Your task to perform on an android device: Clear the cart on target. Search for sony triple a on target, select the first entry, and add it to the cart. Image 0: 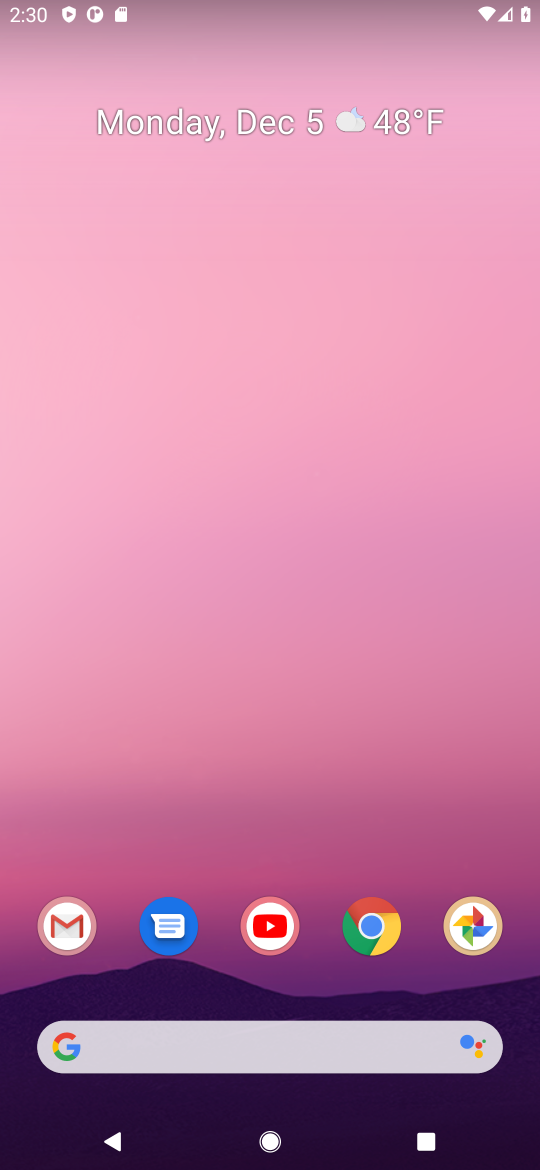
Step 0: click (382, 926)
Your task to perform on an android device: Clear the cart on target. Search for sony triple a on target, select the first entry, and add it to the cart. Image 1: 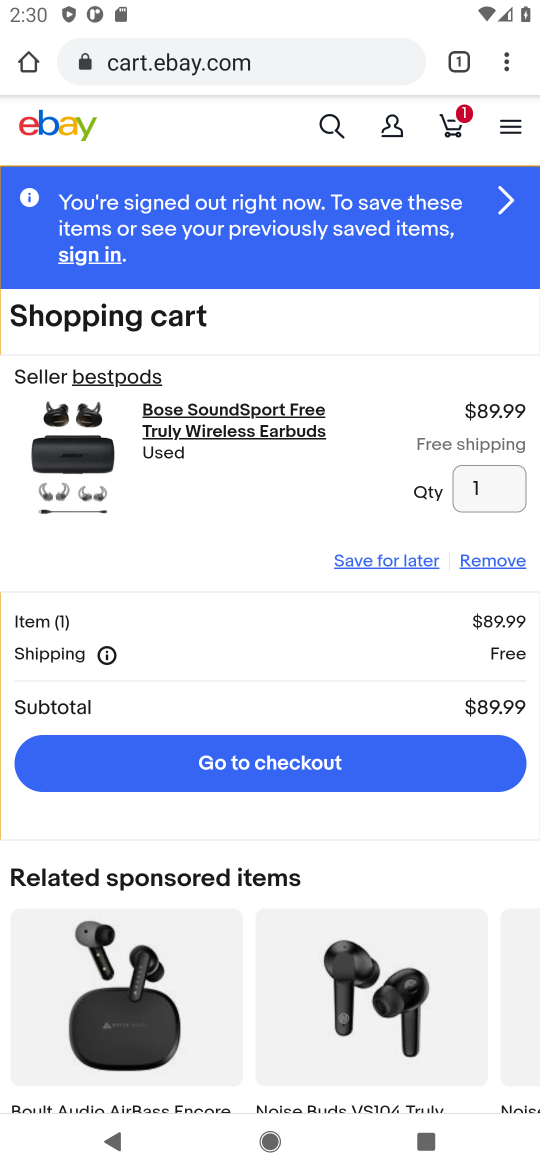
Step 1: click (343, 57)
Your task to perform on an android device: Clear the cart on target. Search for sony triple a on target, select the first entry, and add it to the cart. Image 2: 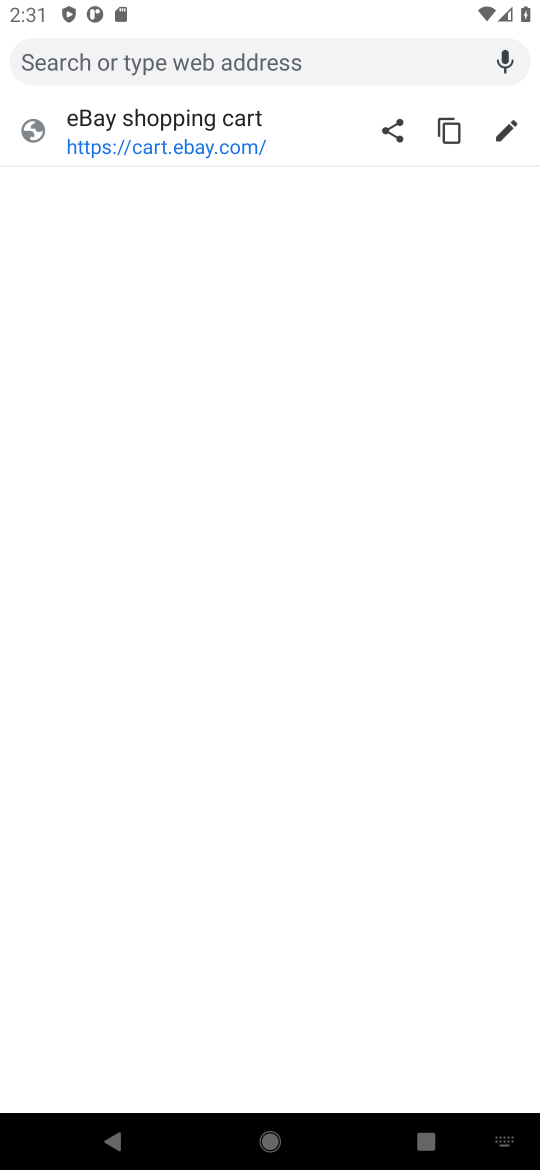
Step 2: type "target"
Your task to perform on an android device: Clear the cart on target. Search for sony triple a on target, select the first entry, and add it to the cart. Image 3: 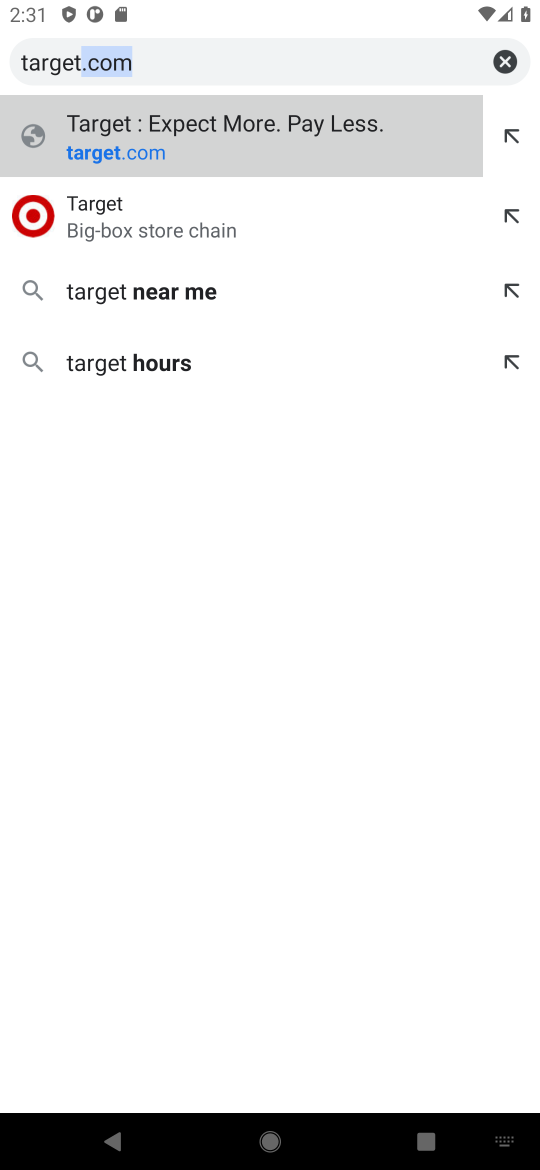
Step 3: press enter
Your task to perform on an android device: Clear the cart on target. Search for sony triple a on target, select the first entry, and add it to the cart. Image 4: 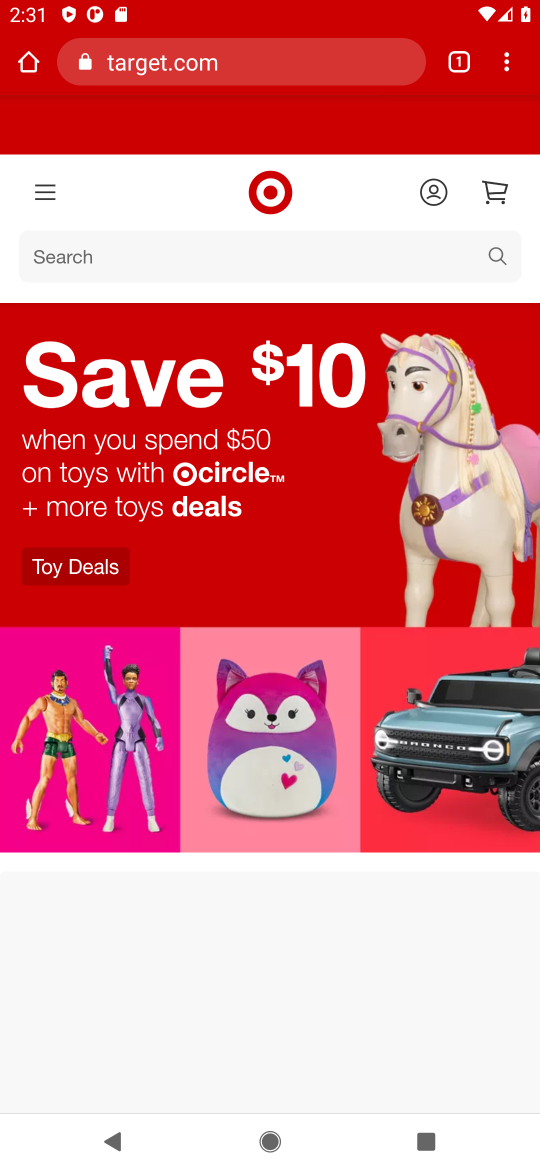
Step 4: click (479, 260)
Your task to perform on an android device: Clear the cart on target. Search for sony triple a on target, select the first entry, and add it to the cart. Image 5: 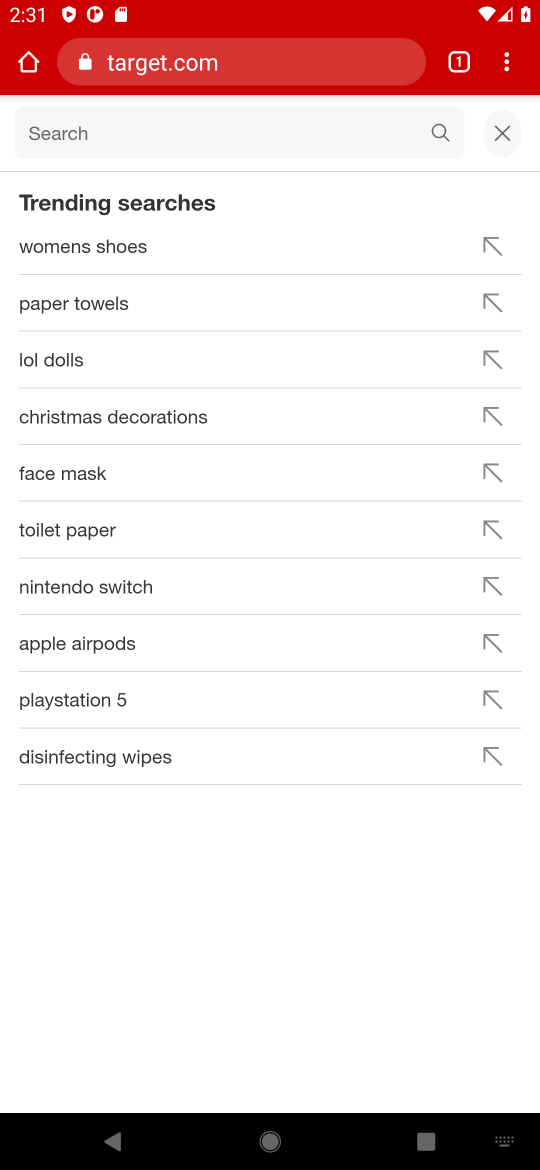
Step 5: type "sony triple a "
Your task to perform on an android device: Clear the cart on target. Search for sony triple a on target, select the first entry, and add it to the cart. Image 6: 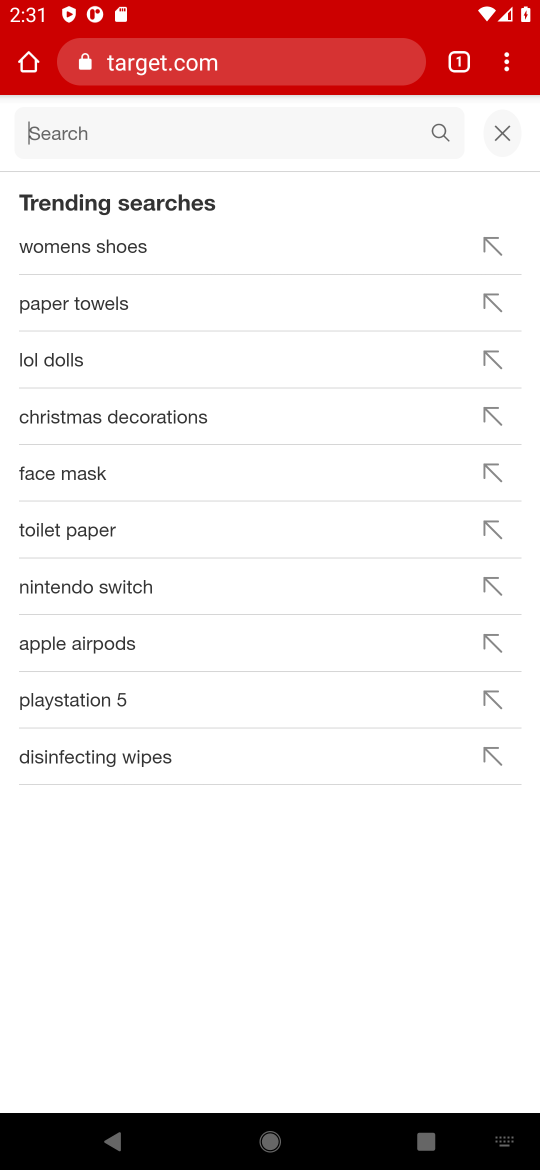
Step 6: press enter
Your task to perform on an android device: Clear the cart on target. Search for sony triple a on target, select the first entry, and add it to the cart. Image 7: 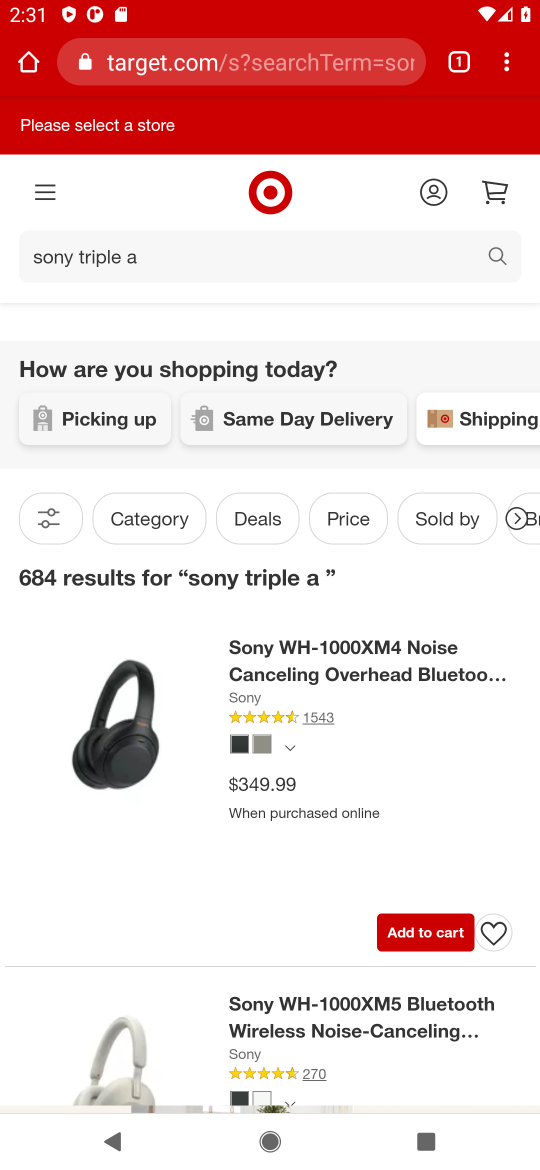
Step 7: task complete